Your task to perform on an android device: turn off airplane mode Image 0: 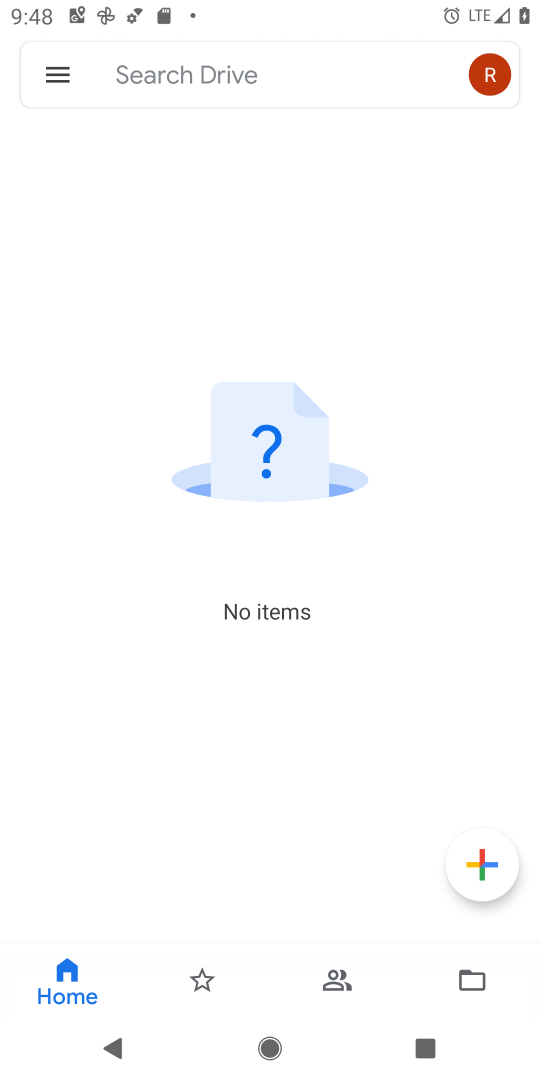
Step 0: press home button
Your task to perform on an android device: turn off airplane mode Image 1: 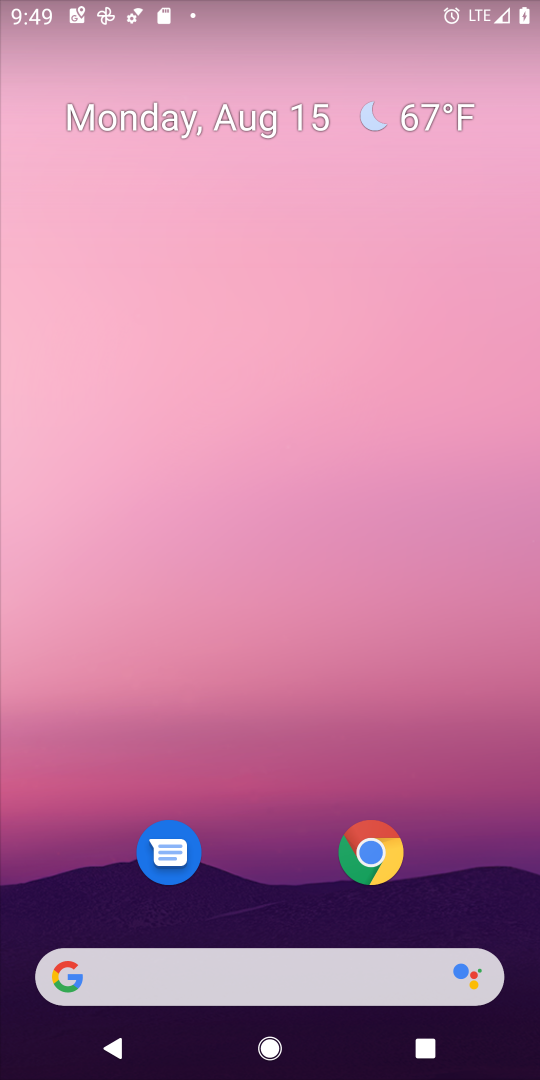
Step 1: drag from (281, 953) to (420, 100)
Your task to perform on an android device: turn off airplane mode Image 2: 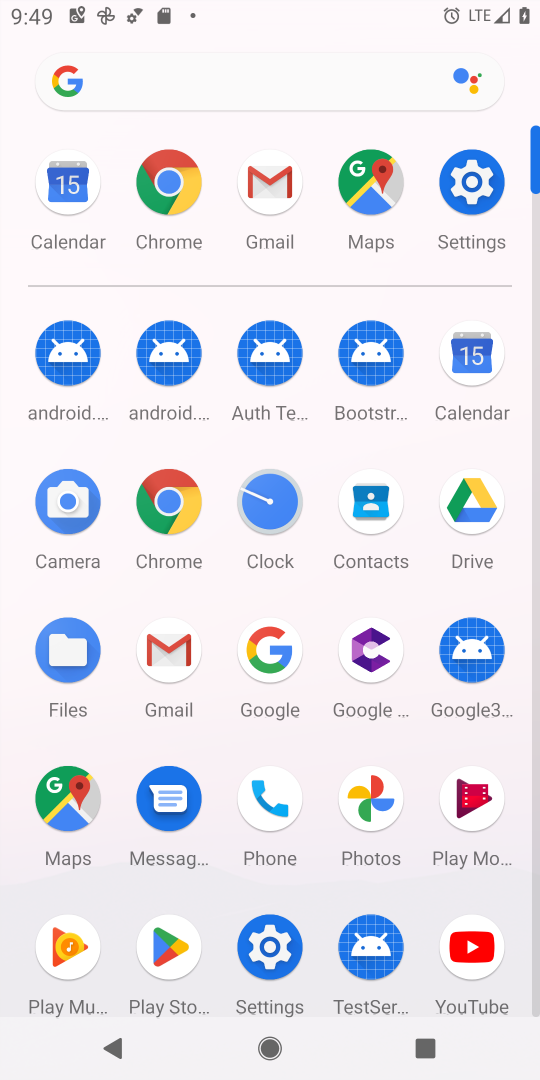
Step 2: click (470, 182)
Your task to perform on an android device: turn off airplane mode Image 3: 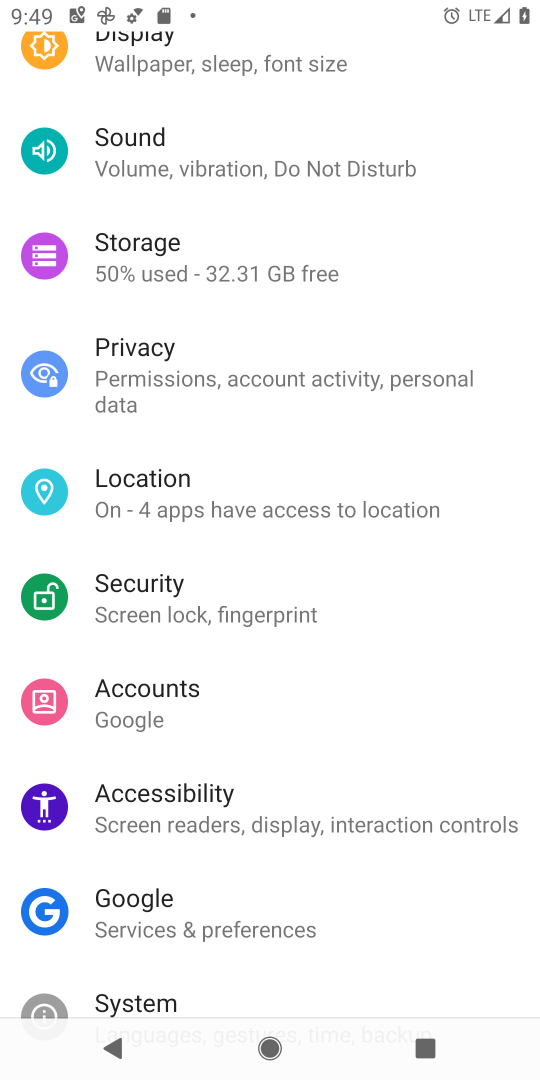
Step 3: drag from (203, 306) to (238, 491)
Your task to perform on an android device: turn off airplane mode Image 4: 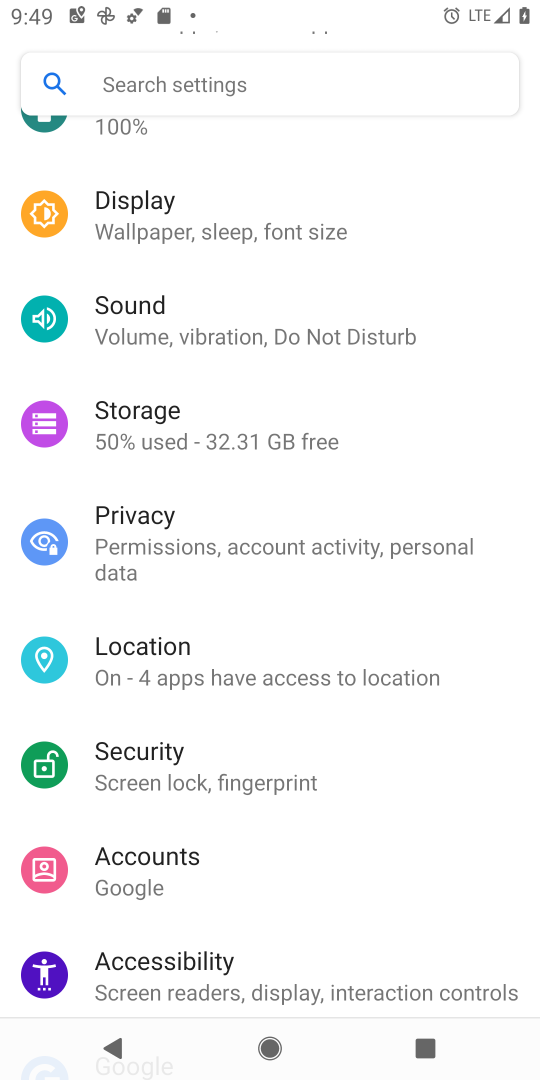
Step 4: drag from (264, 206) to (312, 396)
Your task to perform on an android device: turn off airplane mode Image 5: 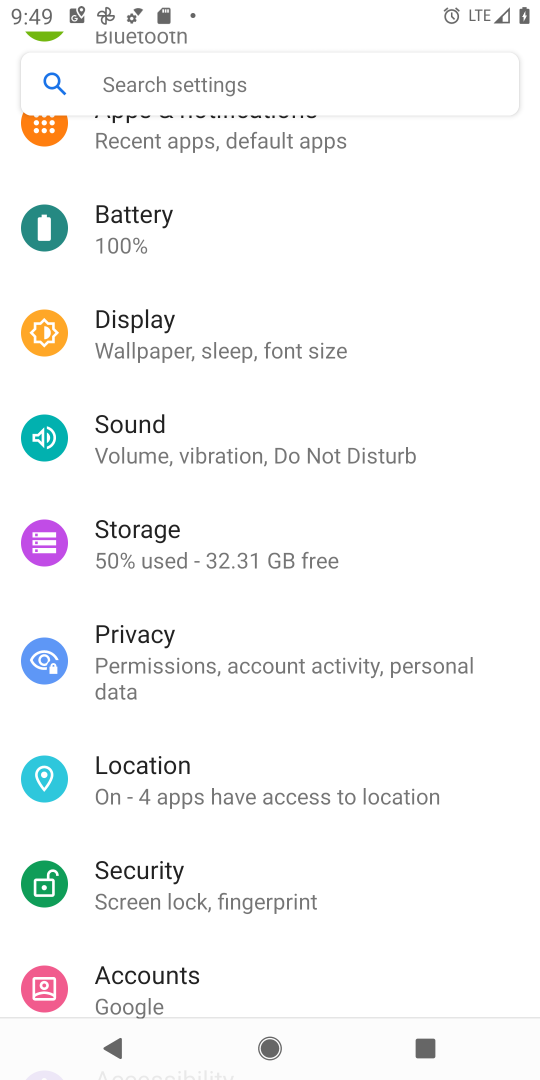
Step 5: drag from (255, 185) to (304, 466)
Your task to perform on an android device: turn off airplane mode Image 6: 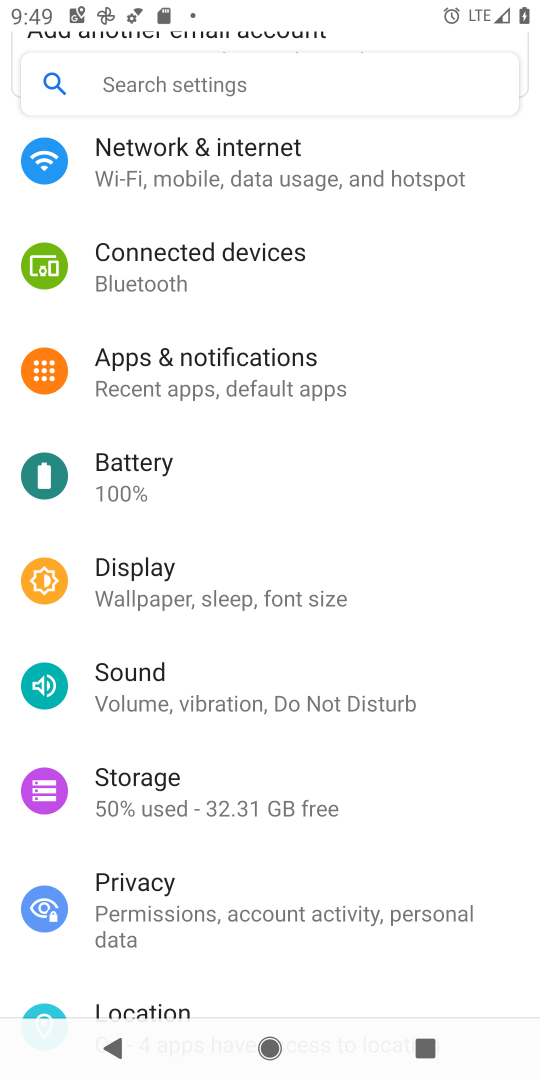
Step 6: click (252, 168)
Your task to perform on an android device: turn off airplane mode Image 7: 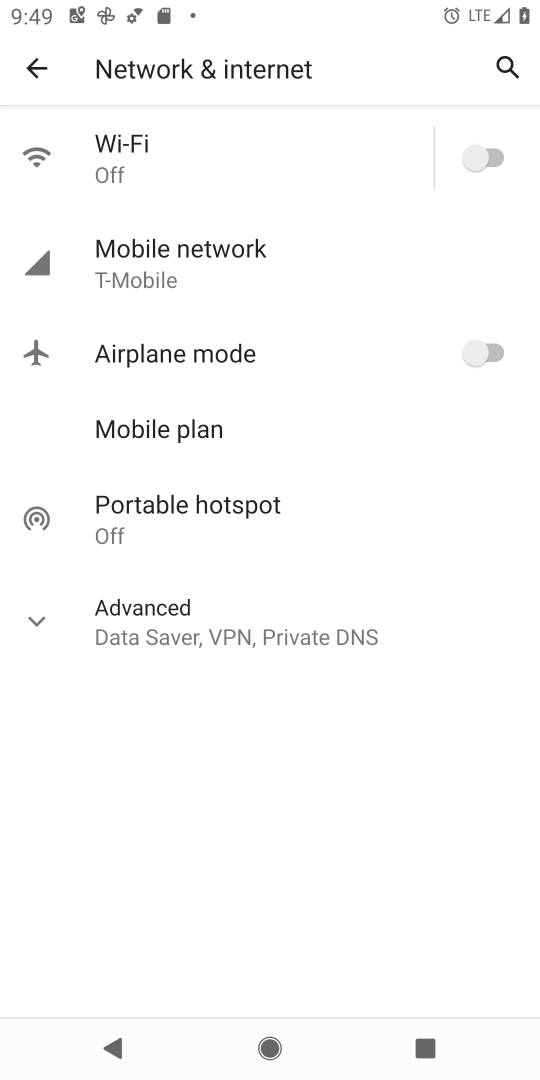
Step 7: task complete